Your task to perform on an android device: check android version Image 0: 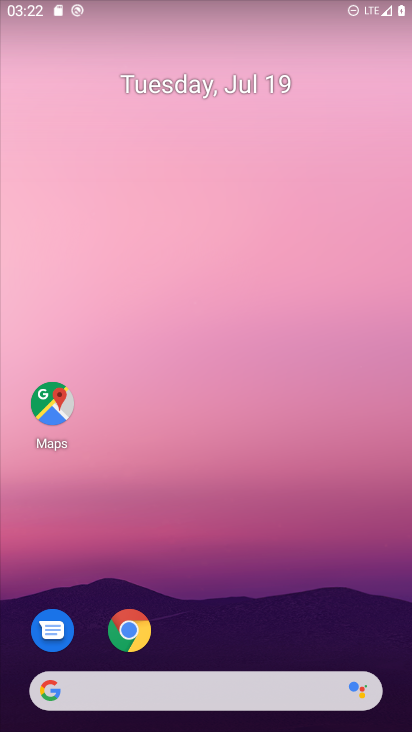
Step 0: drag from (360, 635) to (337, 331)
Your task to perform on an android device: check android version Image 1: 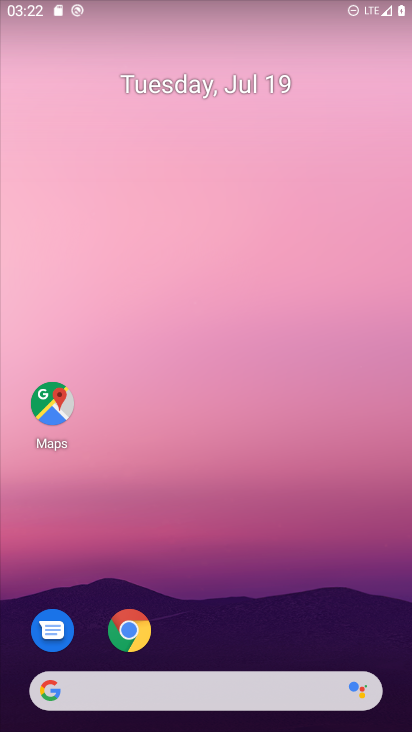
Step 1: drag from (314, 641) to (299, 141)
Your task to perform on an android device: check android version Image 2: 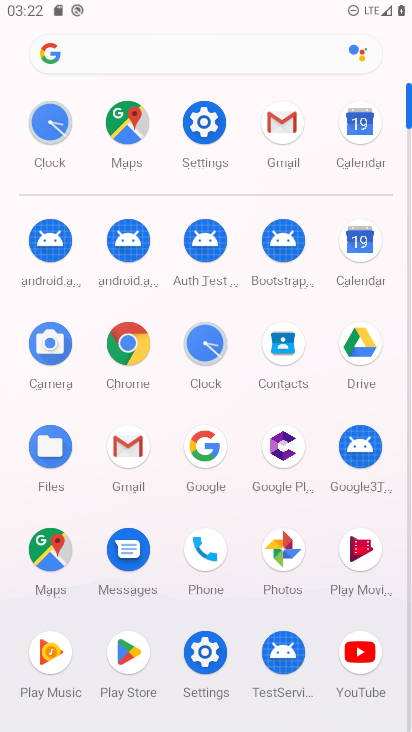
Step 2: click (205, 652)
Your task to perform on an android device: check android version Image 3: 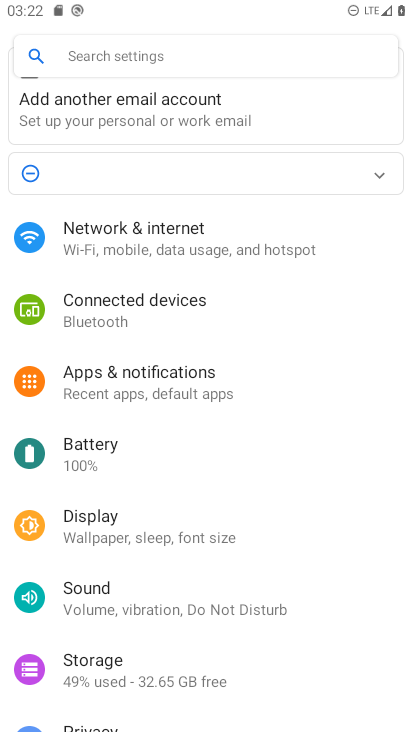
Step 3: drag from (296, 678) to (296, 200)
Your task to perform on an android device: check android version Image 4: 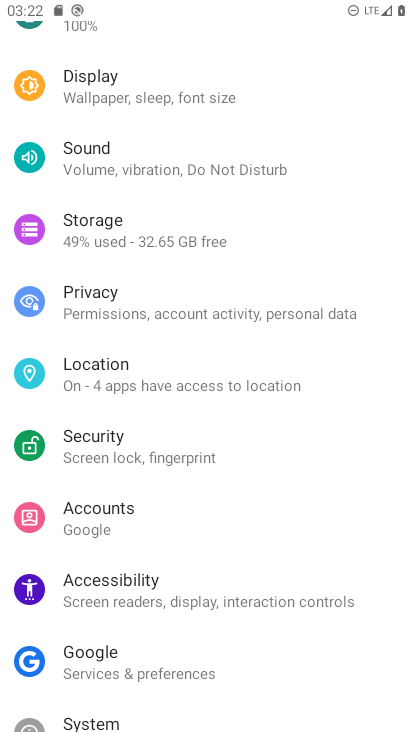
Step 4: drag from (299, 645) to (273, 233)
Your task to perform on an android device: check android version Image 5: 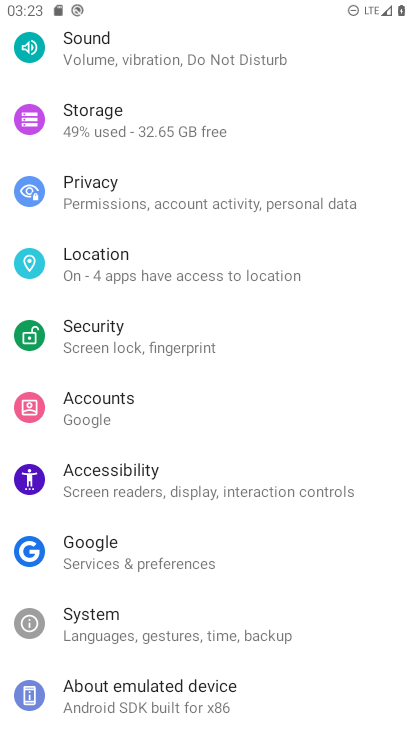
Step 5: click (143, 693)
Your task to perform on an android device: check android version Image 6: 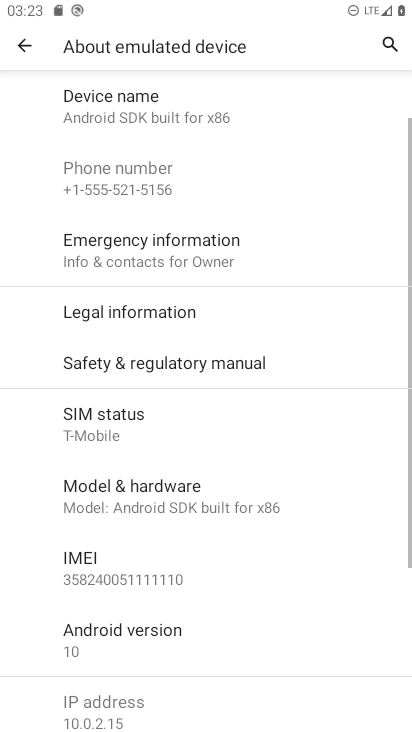
Step 6: drag from (243, 664) to (265, 392)
Your task to perform on an android device: check android version Image 7: 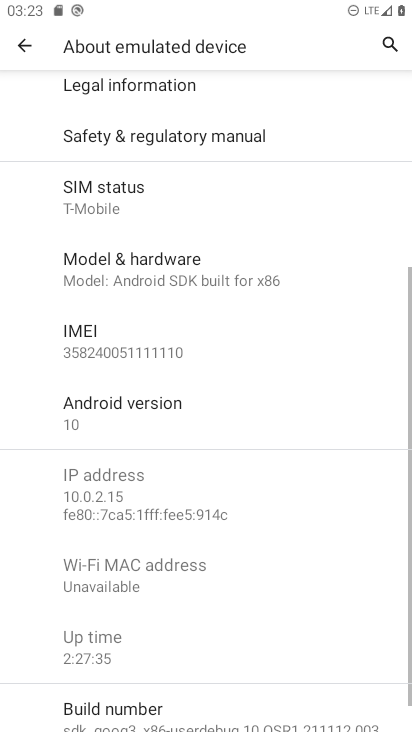
Step 7: click (108, 409)
Your task to perform on an android device: check android version Image 8: 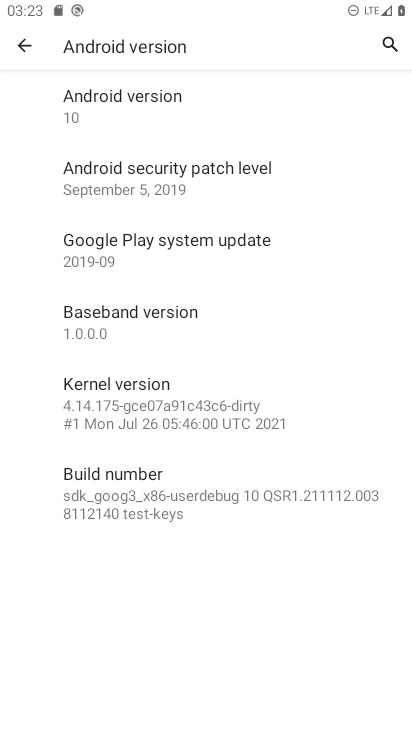
Step 8: task complete